Your task to perform on an android device: toggle wifi Image 0: 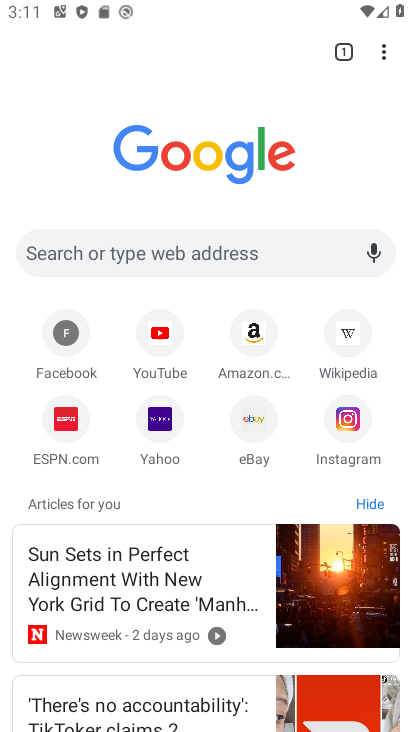
Step 0: click (378, 62)
Your task to perform on an android device: toggle wifi Image 1: 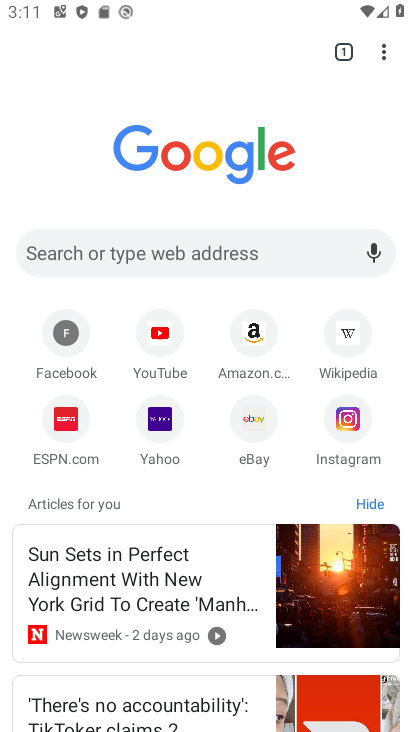
Step 1: press back button
Your task to perform on an android device: toggle wifi Image 2: 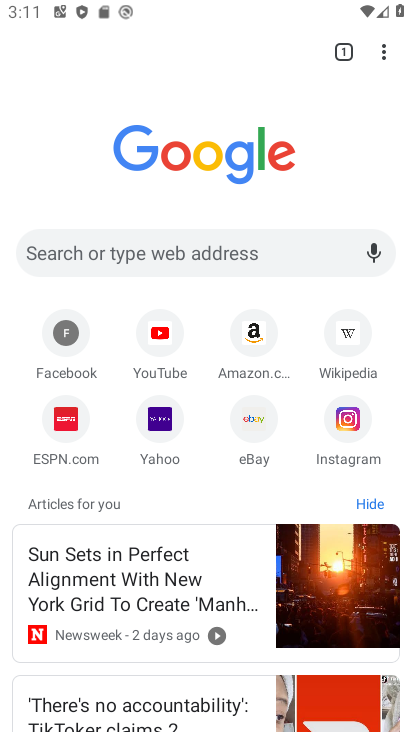
Step 2: press back button
Your task to perform on an android device: toggle wifi Image 3: 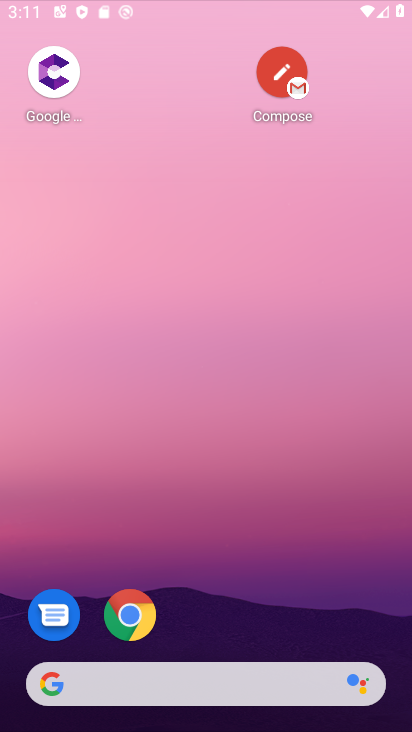
Step 3: press back button
Your task to perform on an android device: toggle wifi Image 4: 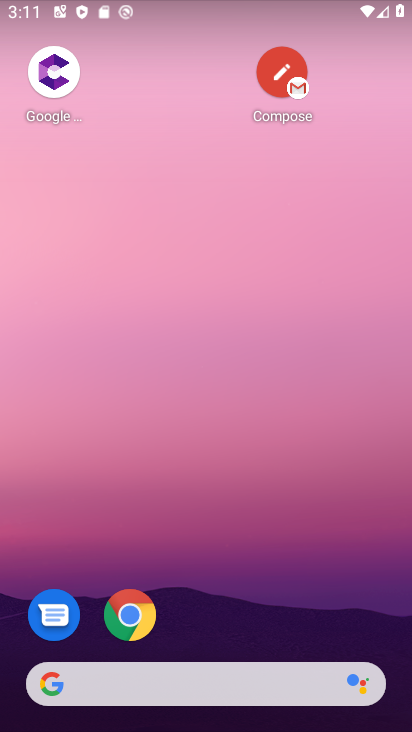
Step 4: drag from (274, 701) to (161, 76)
Your task to perform on an android device: toggle wifi Image 5: 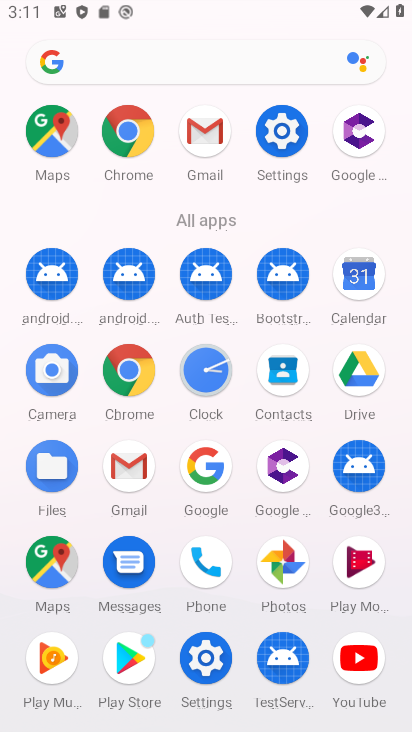
Step 5: click (285, 123)
Your task to perform on an android device: toggle wifi Image 6: 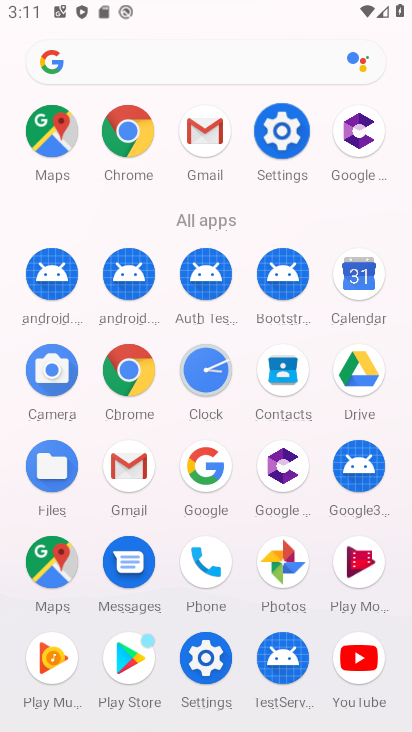
Step 6: click (284, 125)
Your task to perform on an android device: toggle wifi Image 7: 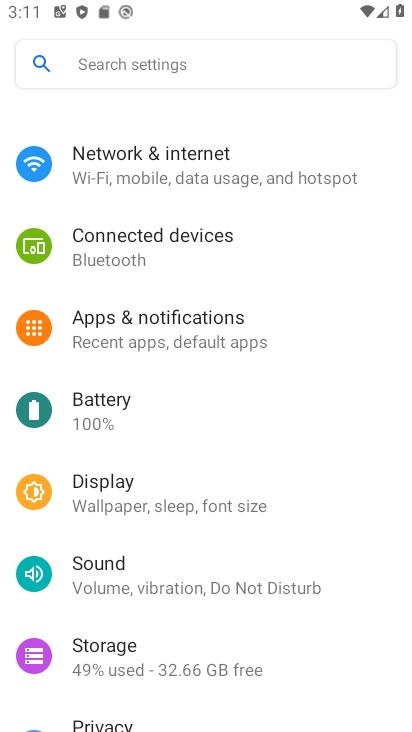
Step 7: click (286, 125)
Your task to perform on an android device: toggle wifi Image 8: 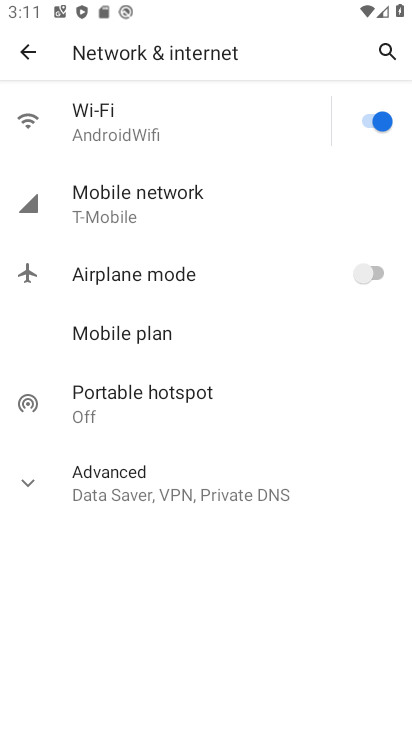
Step 8: task complete